Your task to perform on an android device: install app "Google Keep" Image 0: 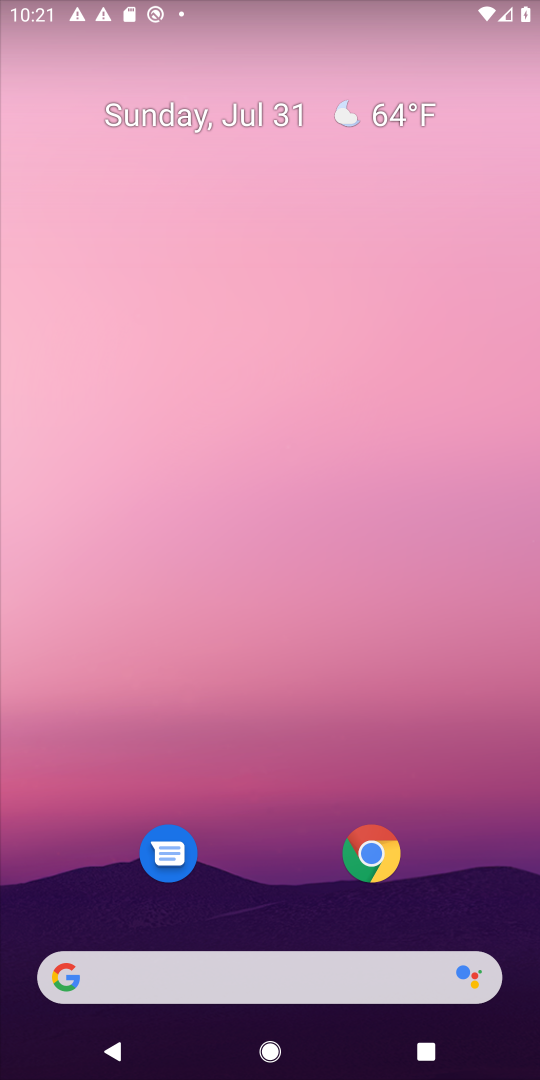
Step 0: drag from (306, 946) to (255, 166)
Your task to perform on an android device: install app "Google Keep" Image 1: 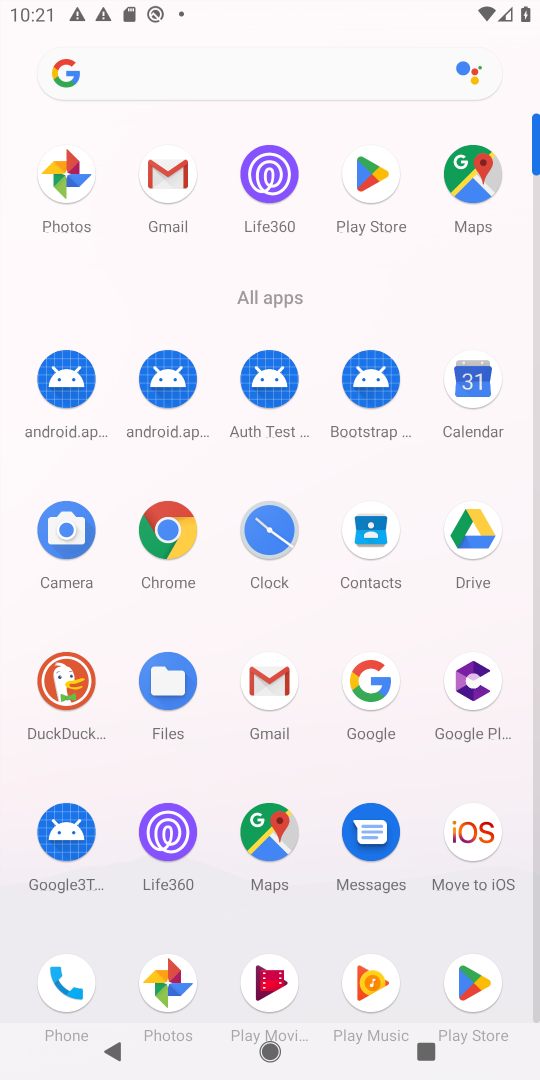
Step 1: click (474, 981)
Your task to perform on an android device: install app "Google Keep" Image 2: 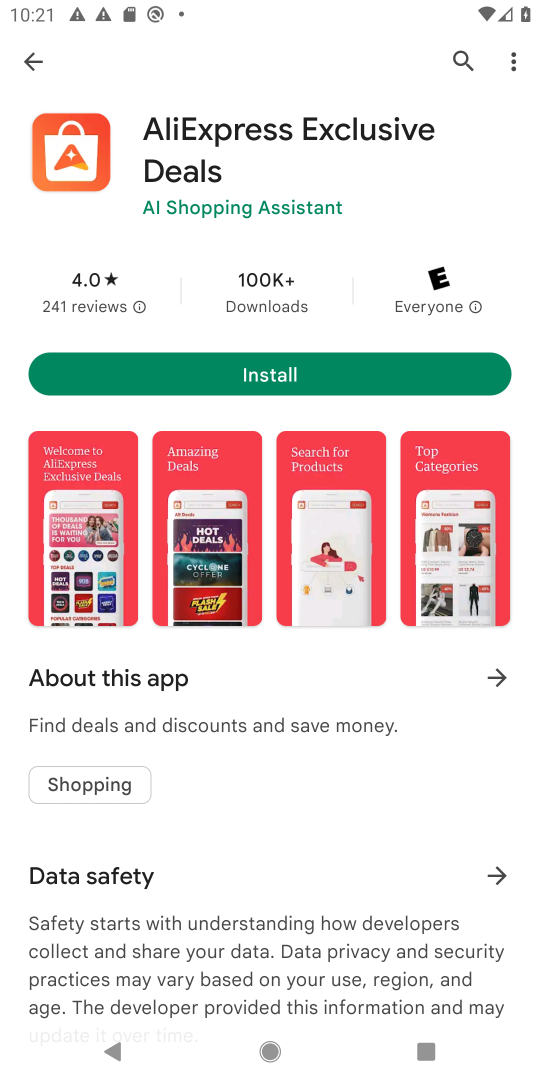
Step 2: click (466, 52)
Your task to perform on an android device: install app "Google Keep" Image 3: 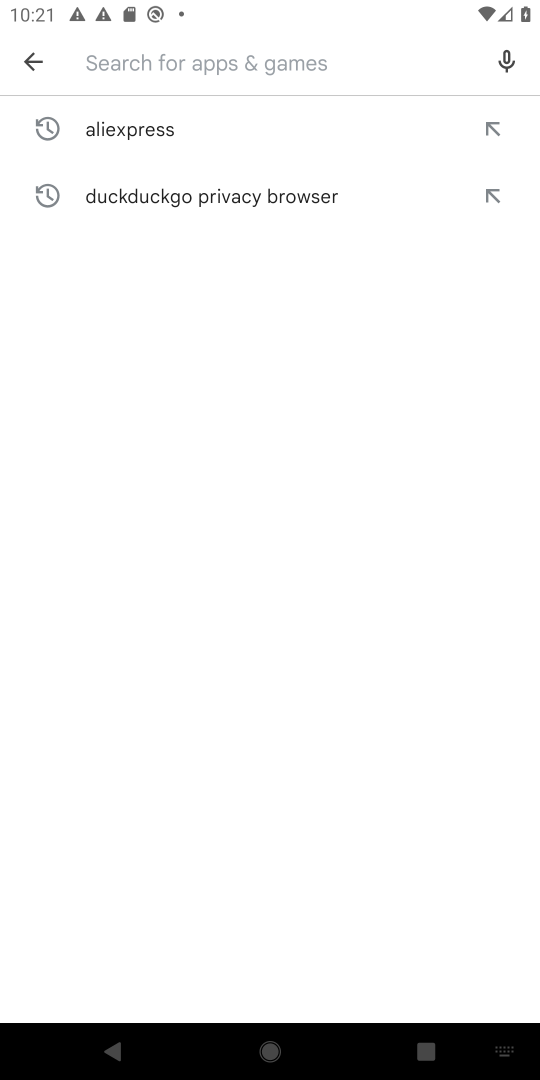
Step 3: type "Google Keep"
Your task to perform on an android device: install app "Google Keep" Image 4: 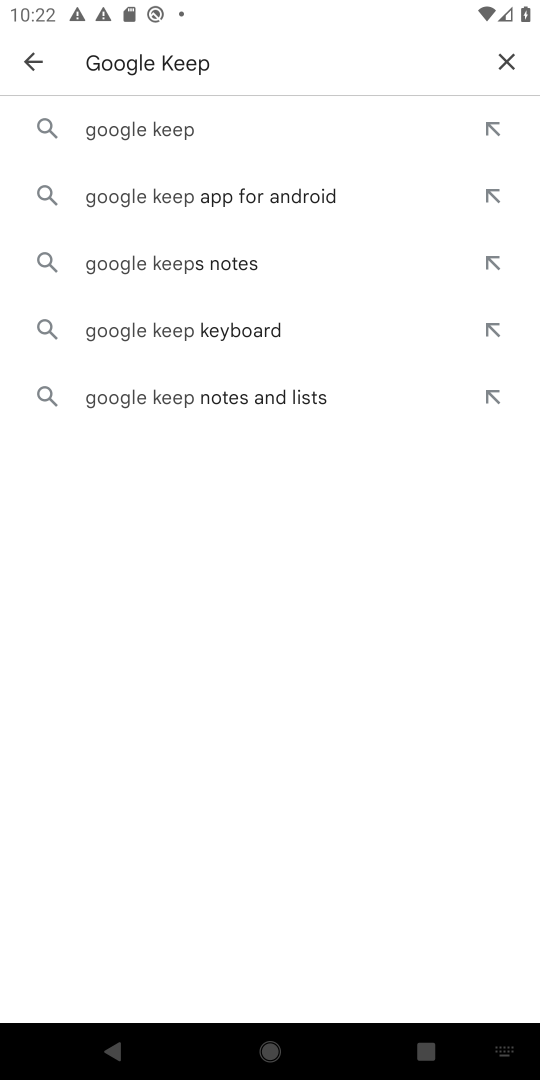
Step 4: click (150, 130)
Your task to perform on an android device: install app "Google Keep" Image 5: 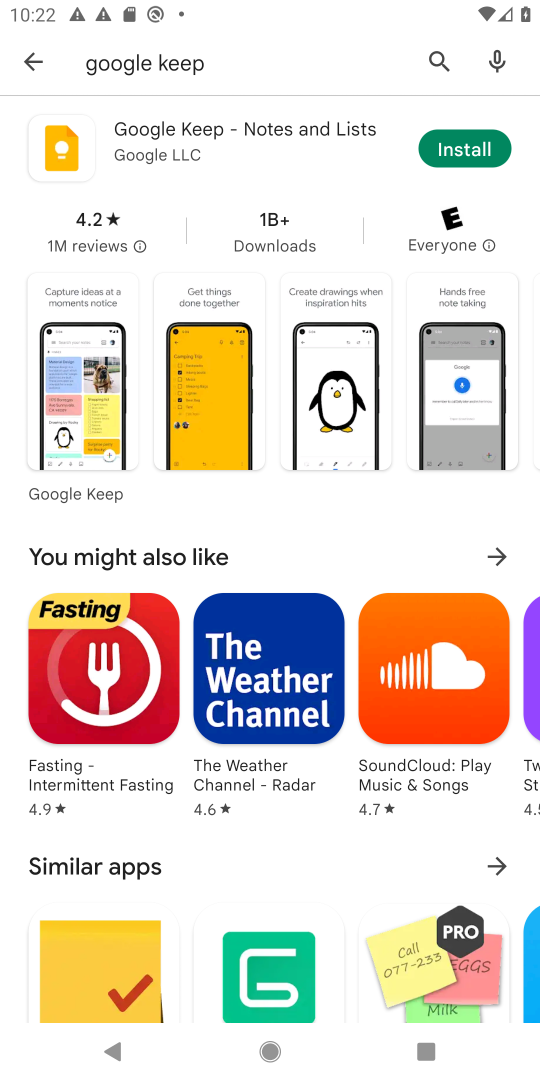
Step 5: click (473, 146)
Your task to perform on an android device: install app "Google Keep" Image 6: 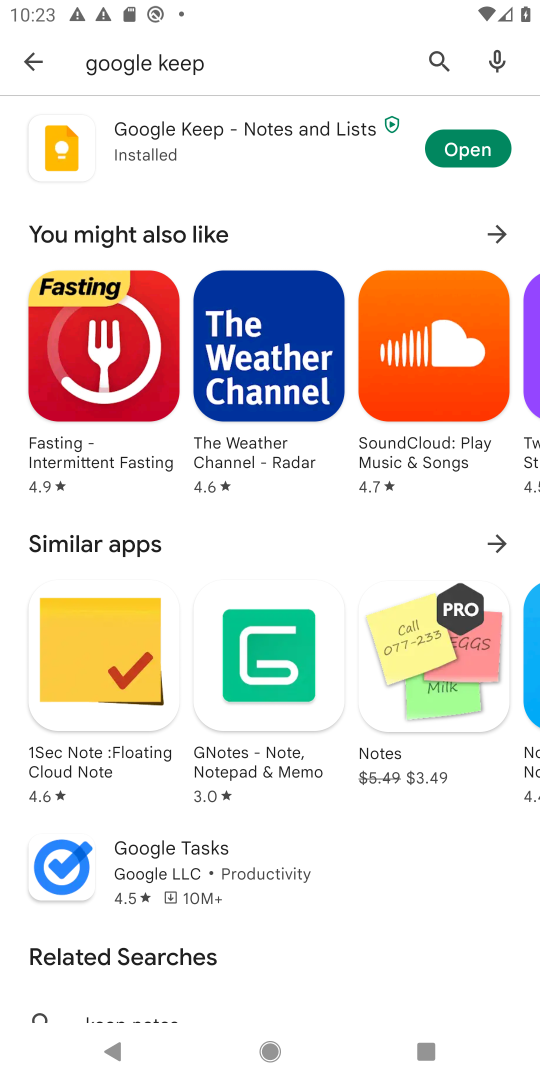
Step 6: task complete